Your task to perform on an android device: show emergency info Image 0: 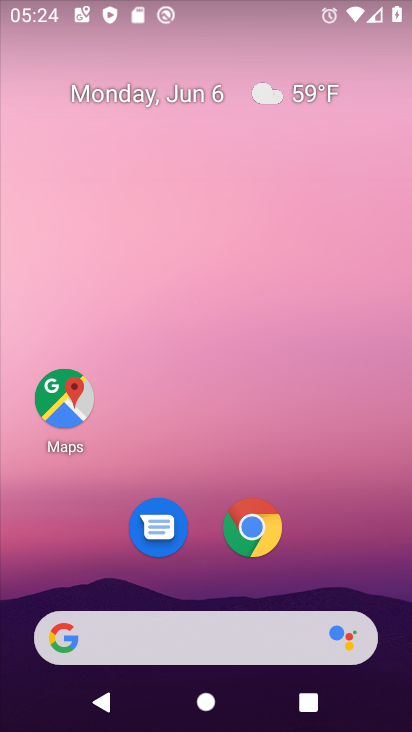
Step 0: drag from (399, 698) to (383, 63)
Your task to perform on an android device: show emergency info Image 1: 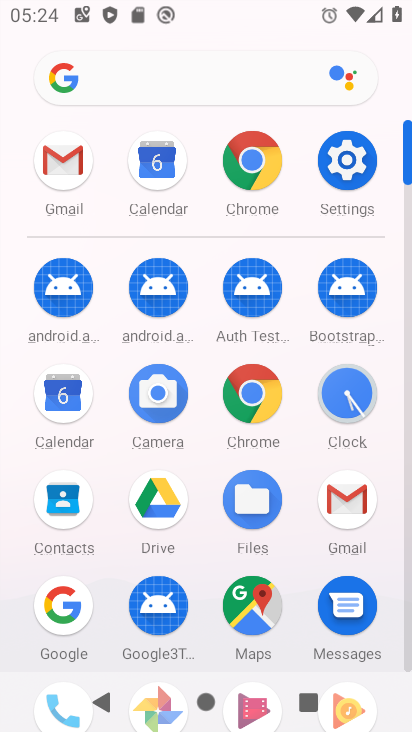
Step 1: click (342, 168)
Your task to perform on an android device: show emergency info Image 2: 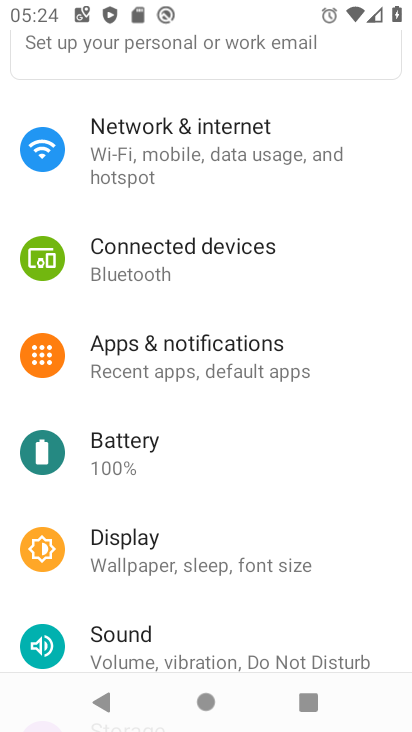
Step 2: drag from (363, 649) to (399, 171)
Your task to perform on an android device: show emergency info Image 3: 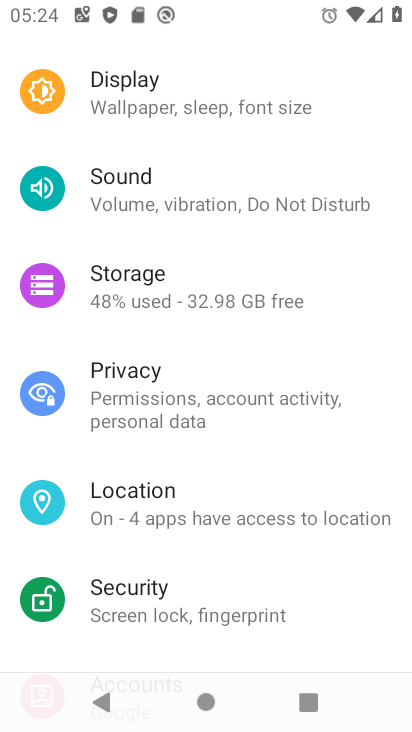
Step 3: drag from (378, 653) to (365, 94)
Your task to perform on an android device: show emergency info Image 4: 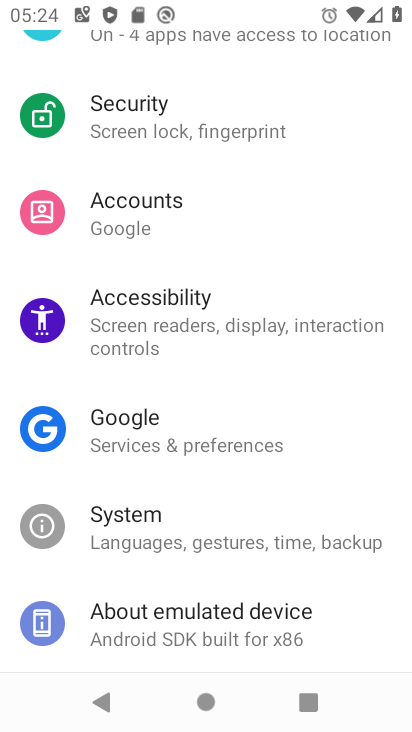
Step 4: click (143, 621)
Your task to perform on an android device: show emergency info Image 5: 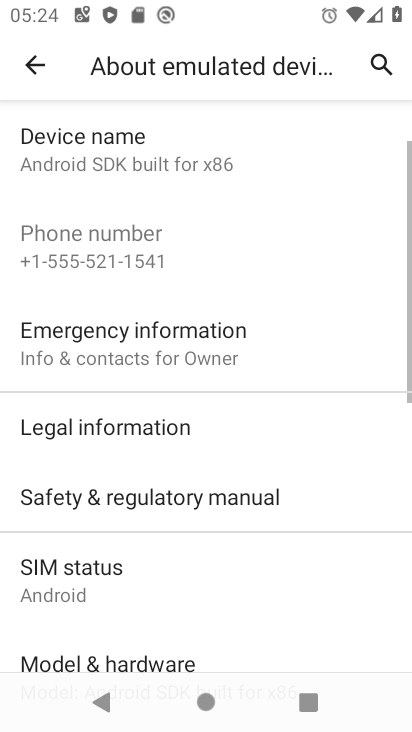
Step 5: drag from (340, 660) to (386, 223)
Your task to perform on an android device: show emergency info Image 6: 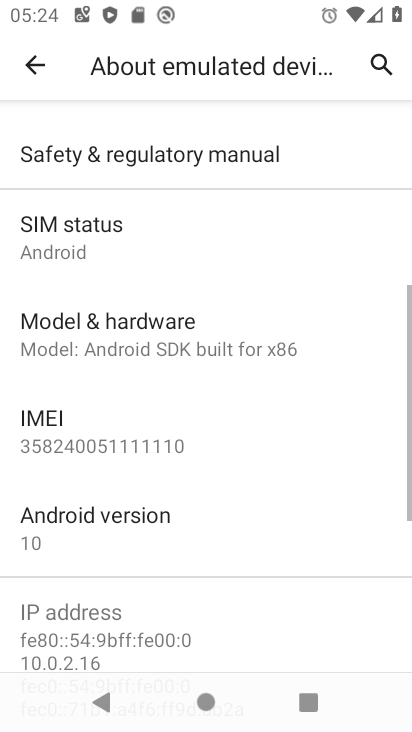
Step 6: drag from (312, 465) to (343, 212)
Your task to perform on an android device: show emergency info Image 7: 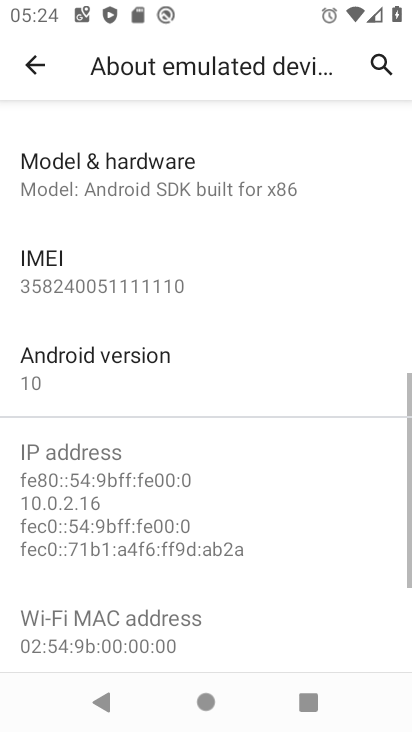
Step 7: drag from (299, 607) to (344, 203)
Your task to perform on an android device: show emergency info Image 8: 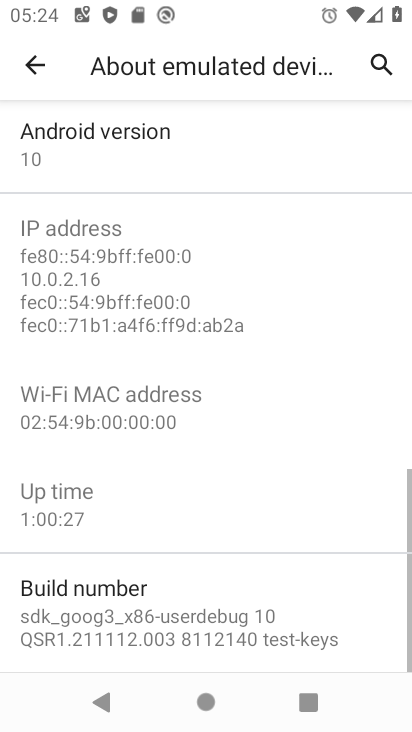
Step 8: drag from (358, 587) to (348, 219)
Your task to perform on an android device: show emergency info Image 9: 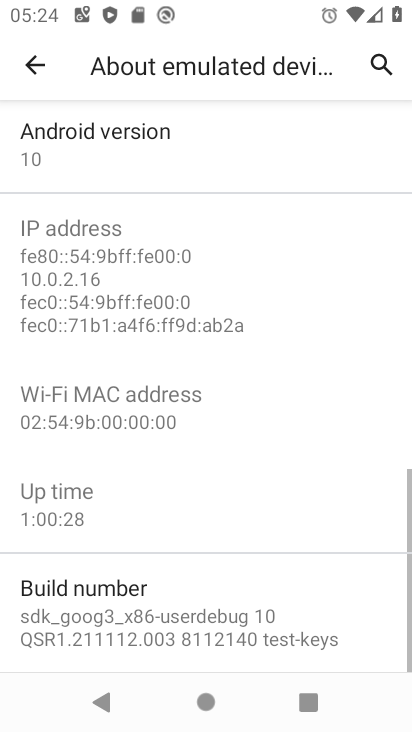
Step 9: drag from (319, 141) to (353, 496)
Your task to perform on an android device: show emergency info Image 10: 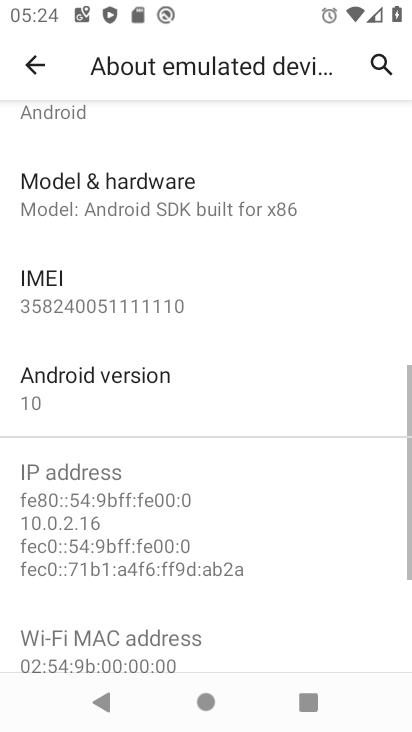
Step 10: drag from (353, 170) to (378, 613)
Your task to perform on an android device: show emergency info Image 11: 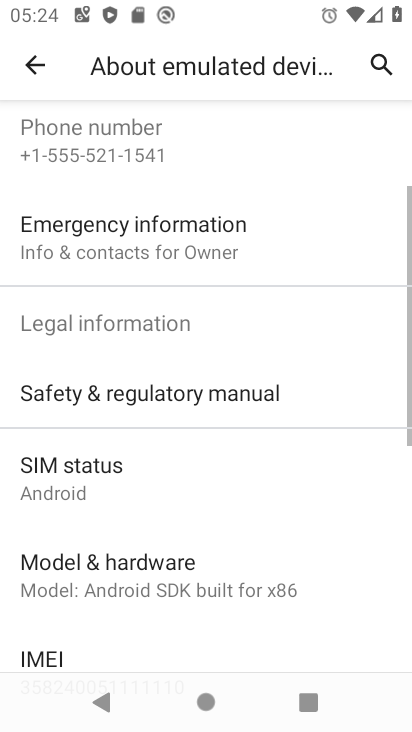
Step 11: click (162, 237)
Your task to perform on an android device: show emergency info Image 12: 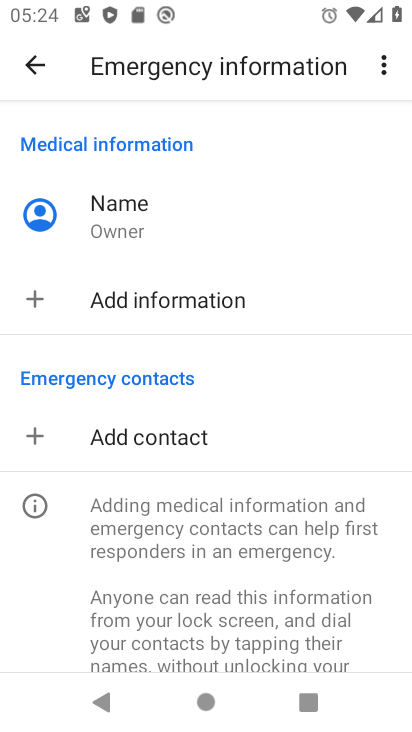
Step 12: task complete